Your task to perform on an android device: Search for a dining table on Crate & Barrel Image 0: 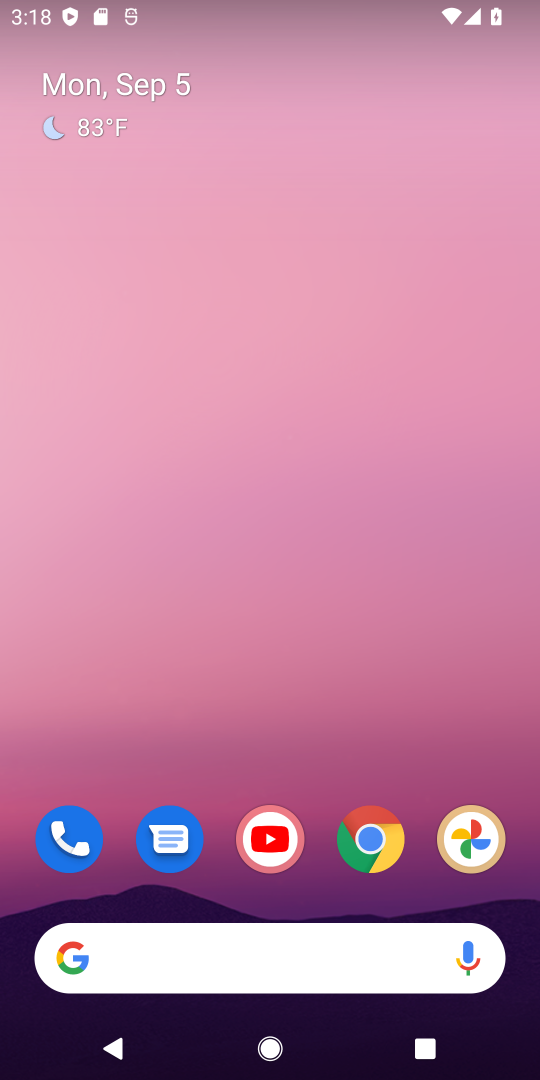
Step 0: click (357, 833)
Your task to perform on an android device: Search for a dining table on Crate & Barrel Image 1: 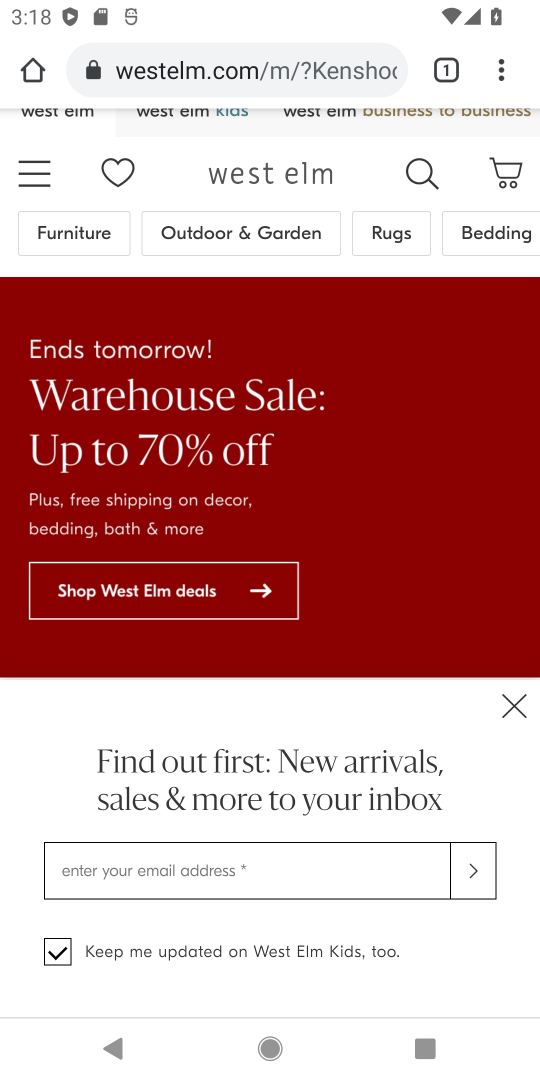
Step 1: click (170, 68)
Your task to perform on an android device: Search for a dining table on Crate & Barrel Image 2: 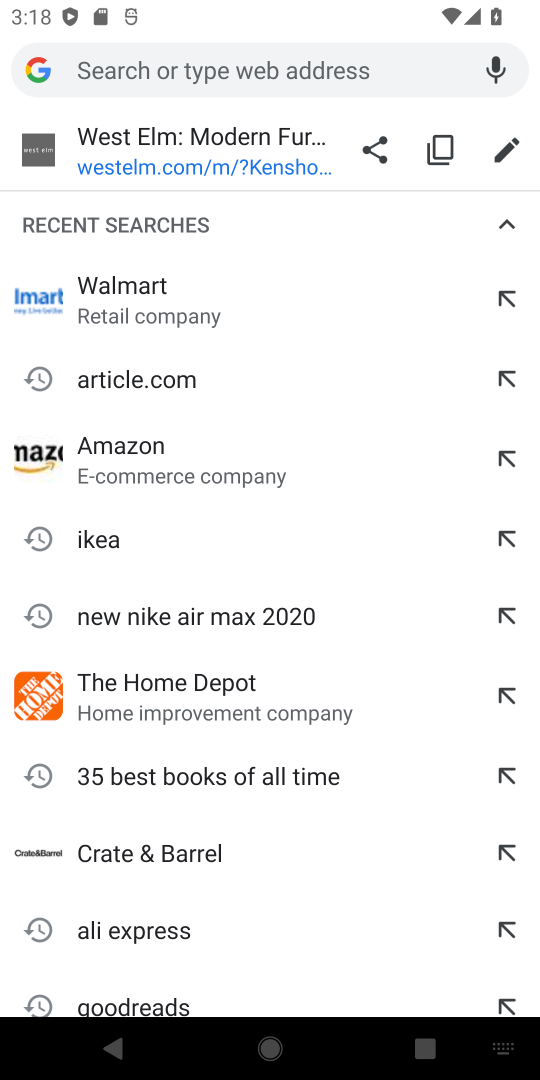
Step 2: type "Crate & Barrel"
Your task to perform on an android device: Search for a dining table on Crate & Barrel Image 3: 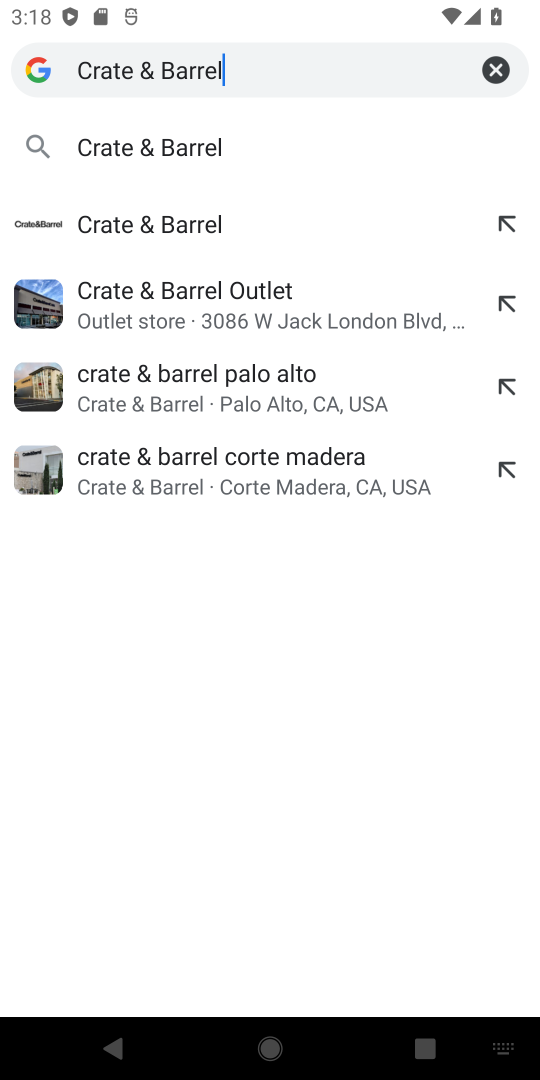
Step 3: click (163, 144)
Your task to perform on an android device: Search for a dining table on Crate & Barrel Image 4: 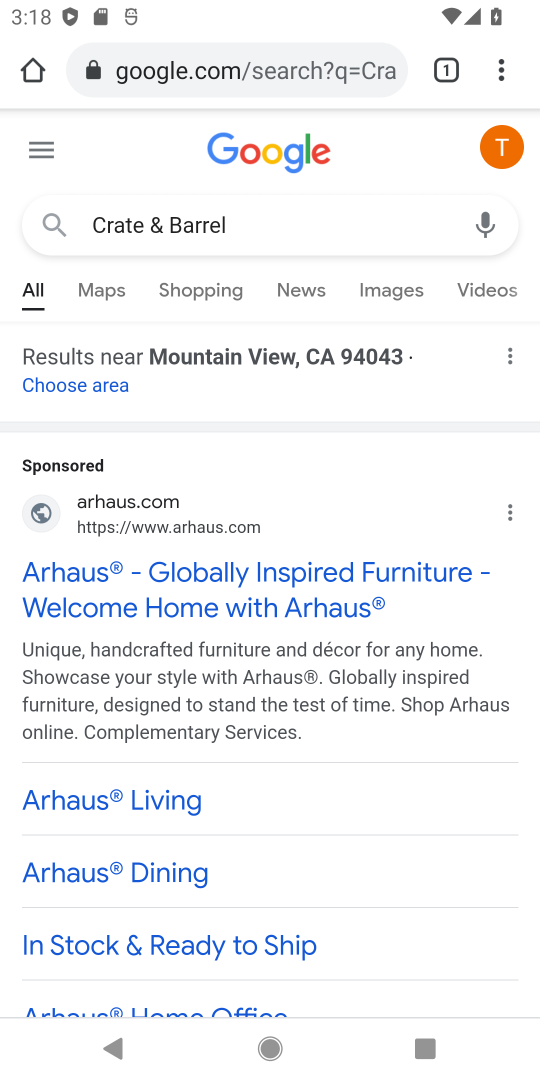
Step 4: drag from (190, 826) to (252, 424)
Your task to perform on an android device: Search for a dining table on Crate & Barrel Image 5: 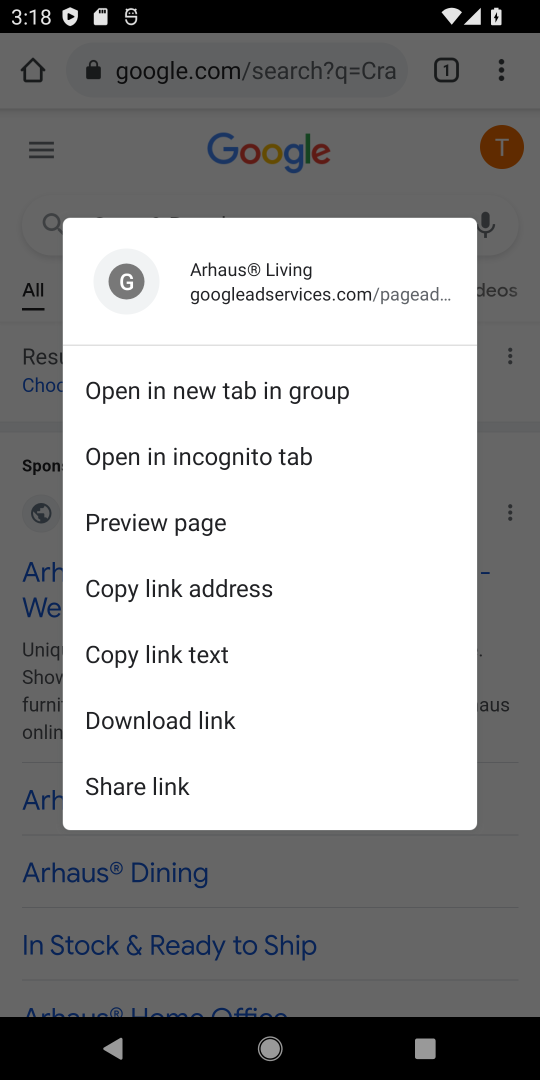
Step 5: drag from (31, 941) to (25, 423)
Your task to perform on an android device: Search for a dining table on Crate & Barrel Image 6: 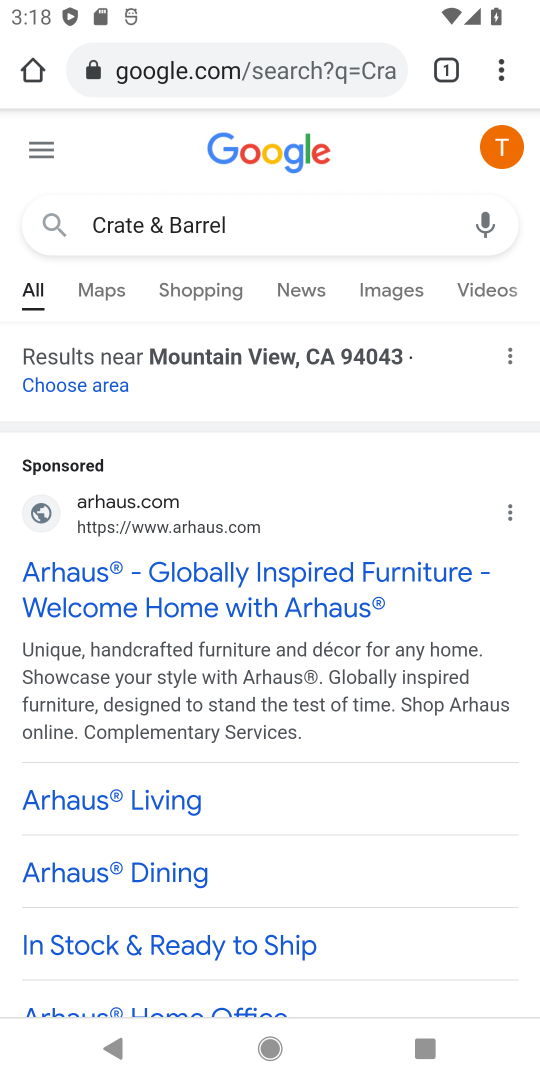
Step 6: drag from (160, 982) to (311, 318)
Your task to perform on an android device: Search for a dining table on Crate & Barrel Image 7: 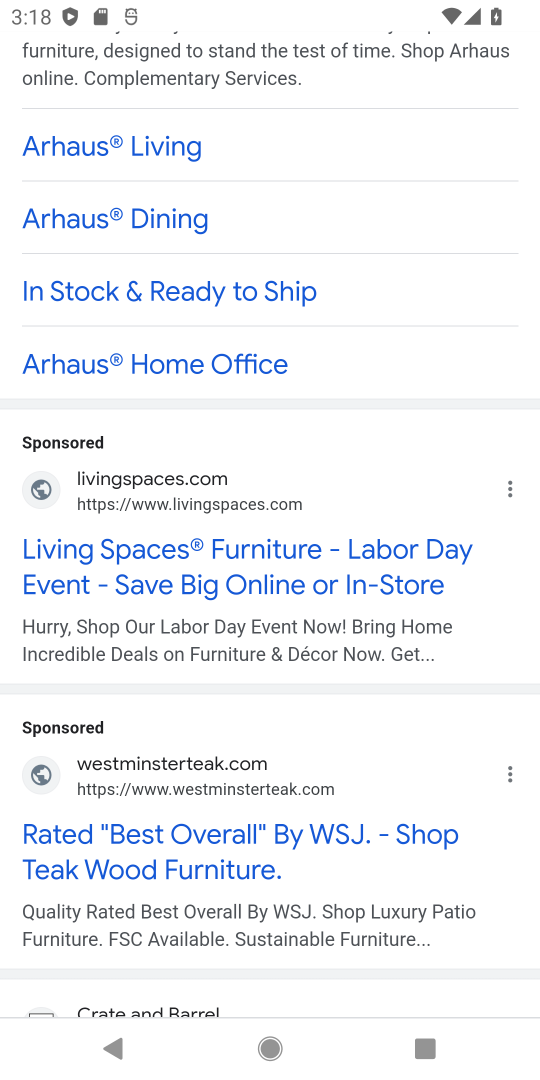
Step 7: drag from (314, 588) to (362, 220)
Your task to perform on an android device: Search for a dining table on Crate & Barrel Image 8: 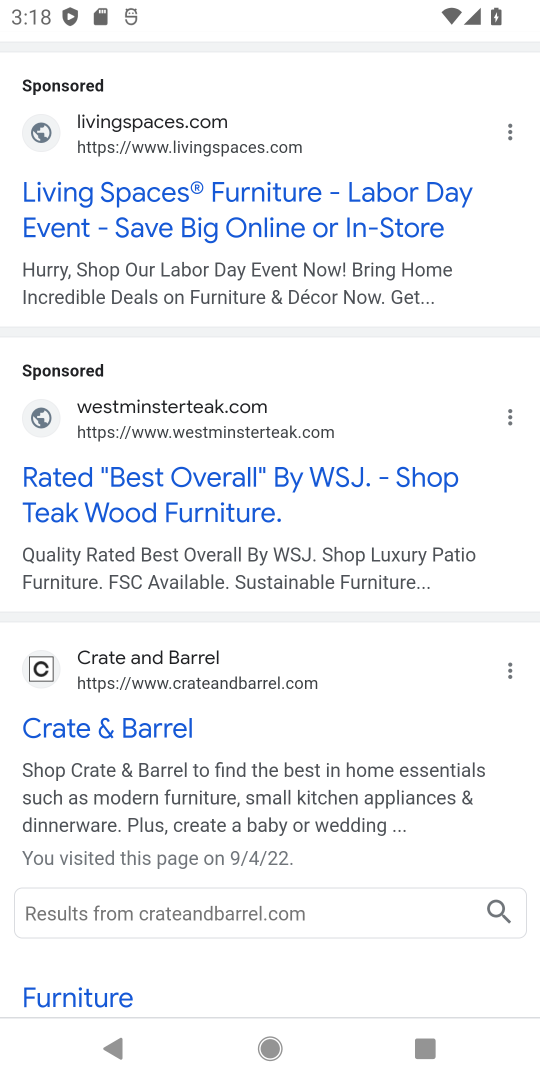
Step 8: click (123, 720)
Your task to perform on an android device: Search for a dining table on Crate & Barrel Image 9: 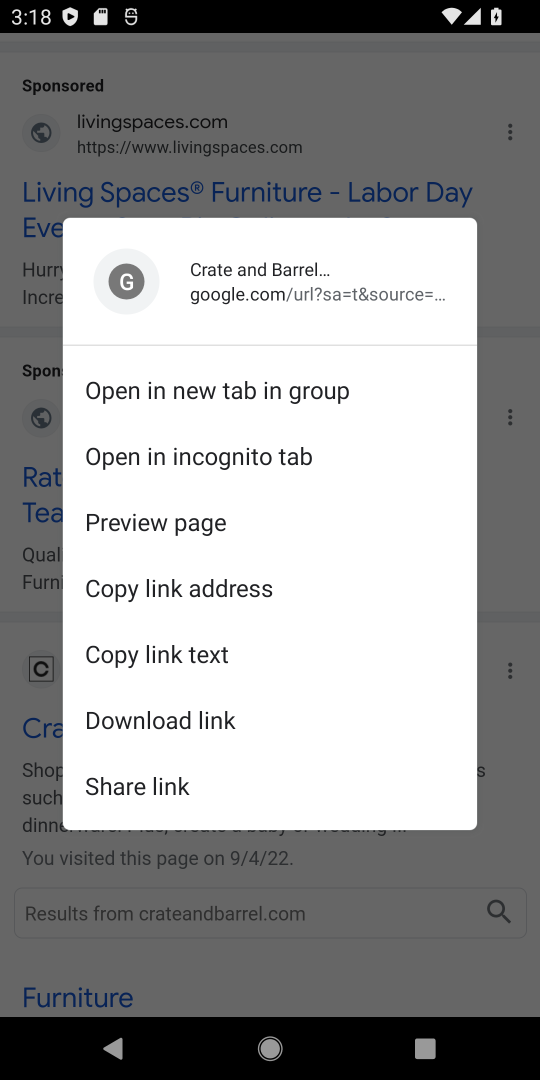
Step 9: click (42, 819)
Your task to perform on an android device: Search for a dining table on Crate & Barrel Image 10: 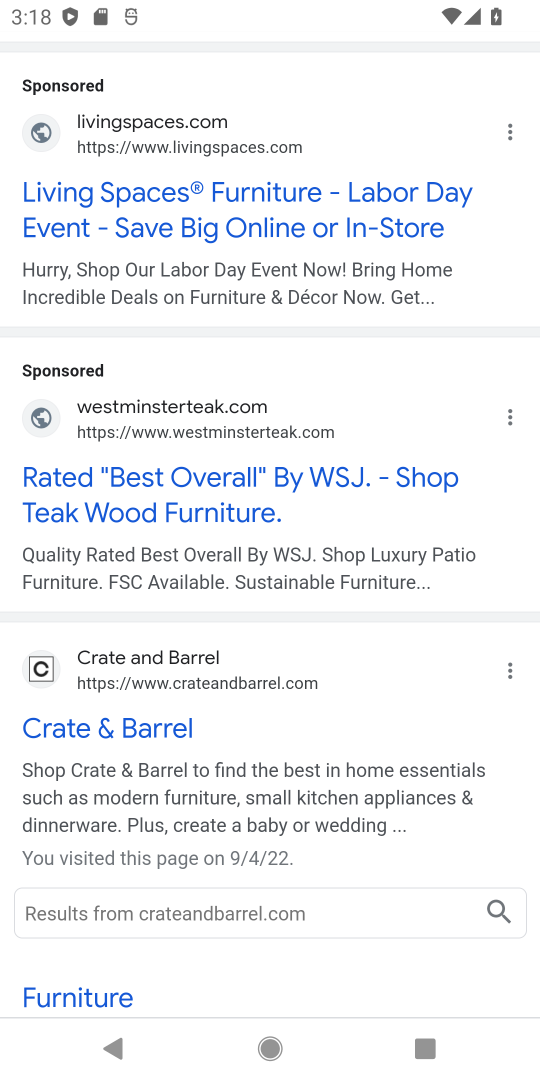
Step 10: click (103, 744)
Your task to perform on an android device: Search for a dining table on Crate & Barrel Image 11: 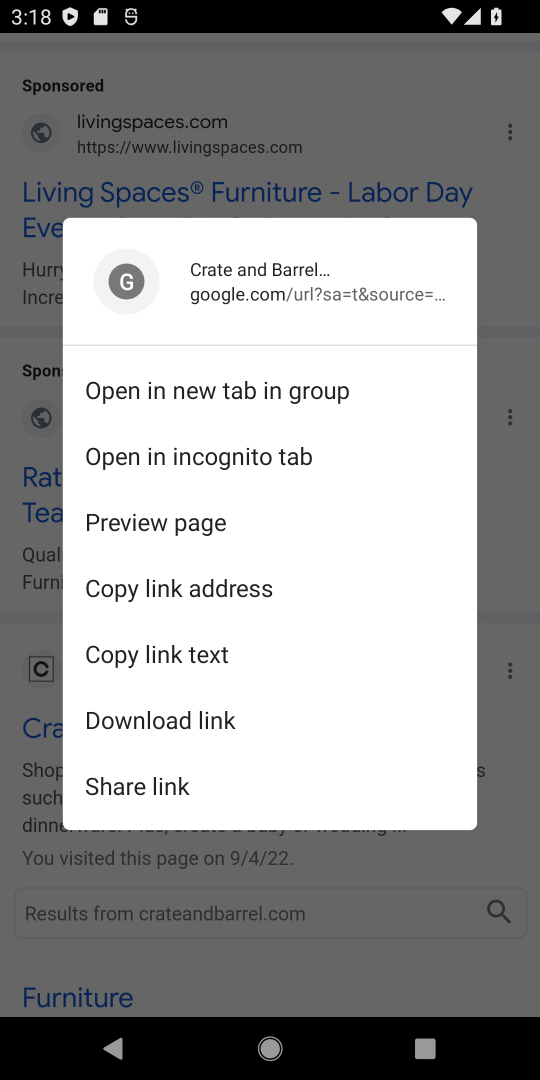
Step 11: click (11, 721)
Your task to perform on an android device: Search for a dining table on Crate & Barrel Image 12: 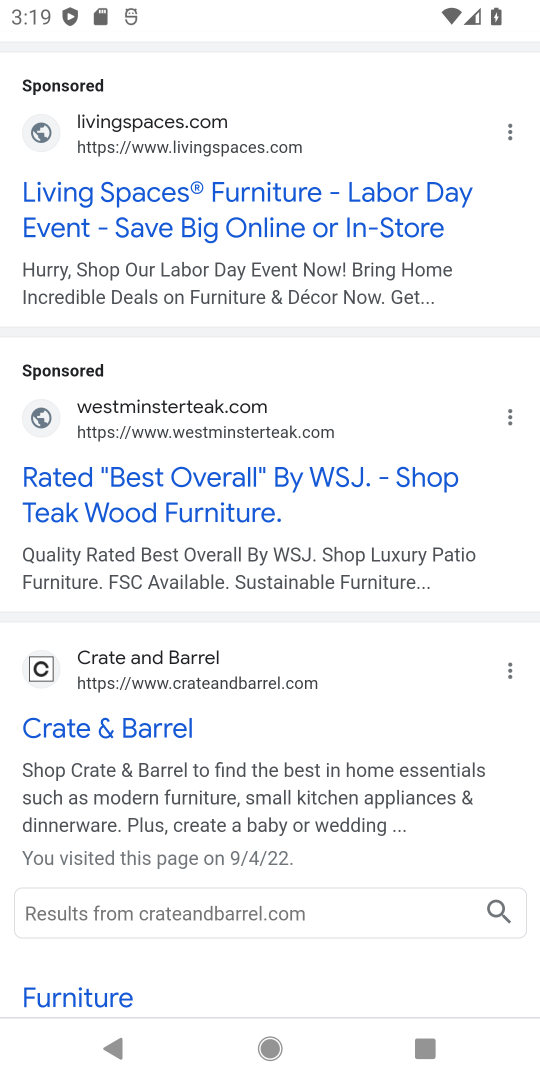
Step 12: click (121, 731)
Your task to perform on an android device: Search for a dining table on Crate & Barrel Image 13: 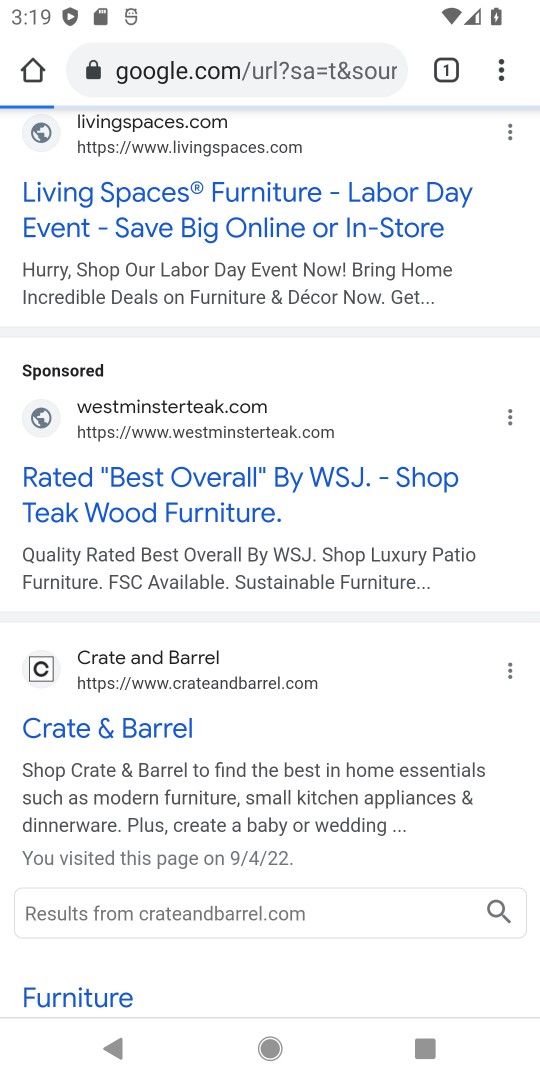
Step 13: click (121, 731)
Your task to perform on an android device: Search for a dining table on Crate & Barrel Image 14: 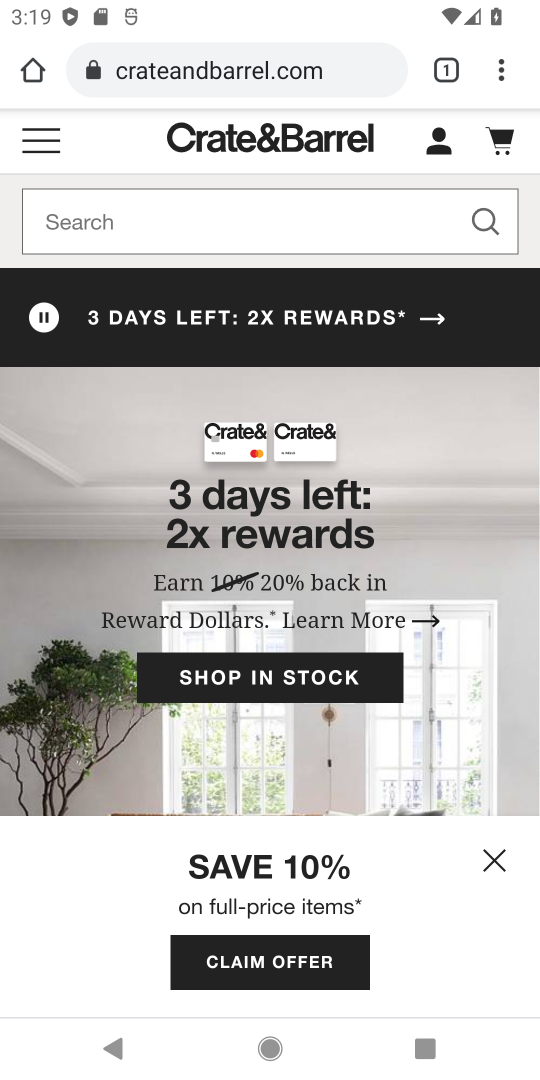
Step 14: click (135, 234)
Your task to perform on an android device: Search for a dining table on Crate & Barrel Image 15: 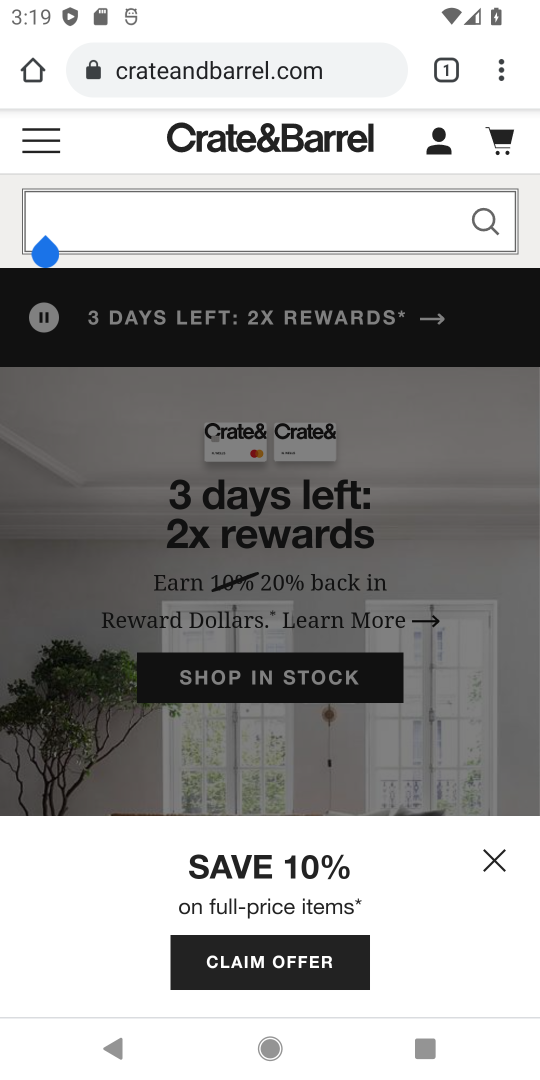
Step 15: type "Dining table"
Your task to perform on an android device: Search for a dining table on Crate & Barrel Image 16: 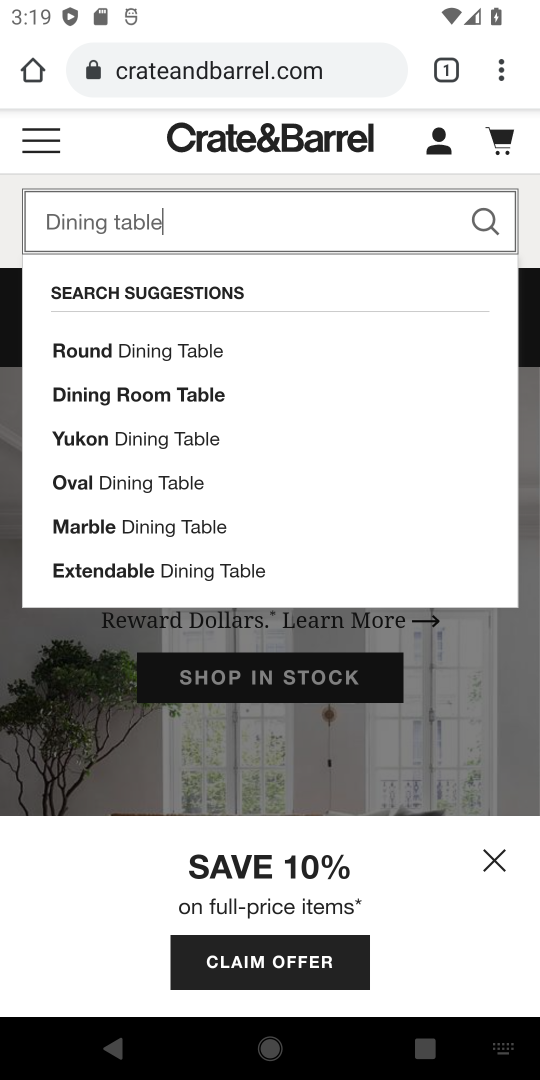
Step 16: click (482, 225)
Your task to perform on an android device: Search for a dining table on Crate & Barrel Image 17: 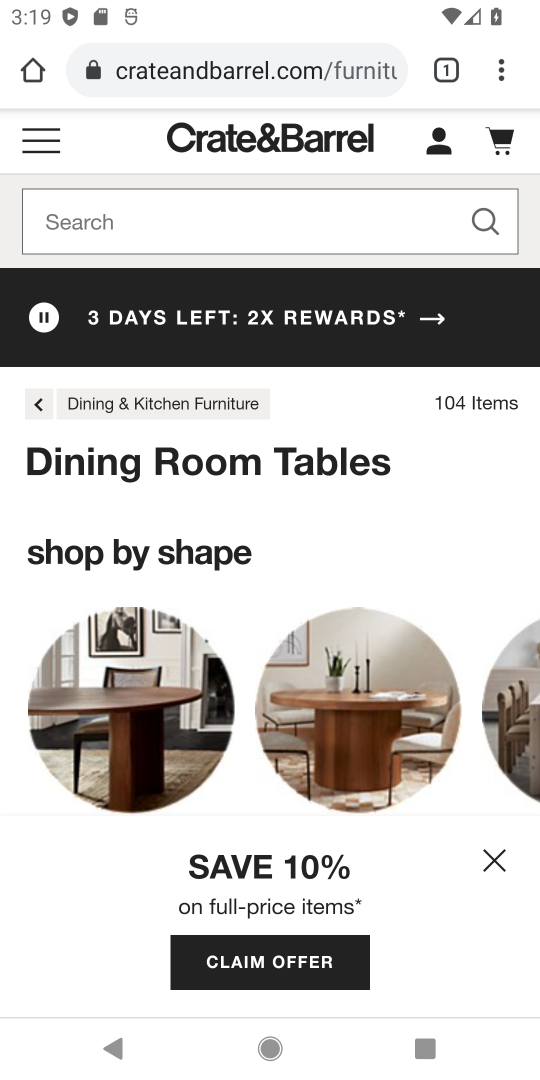
Step 17: click (487, 862)
Your task to perform on an android device: Search for a dining table on Crate & Barrel Image 18: 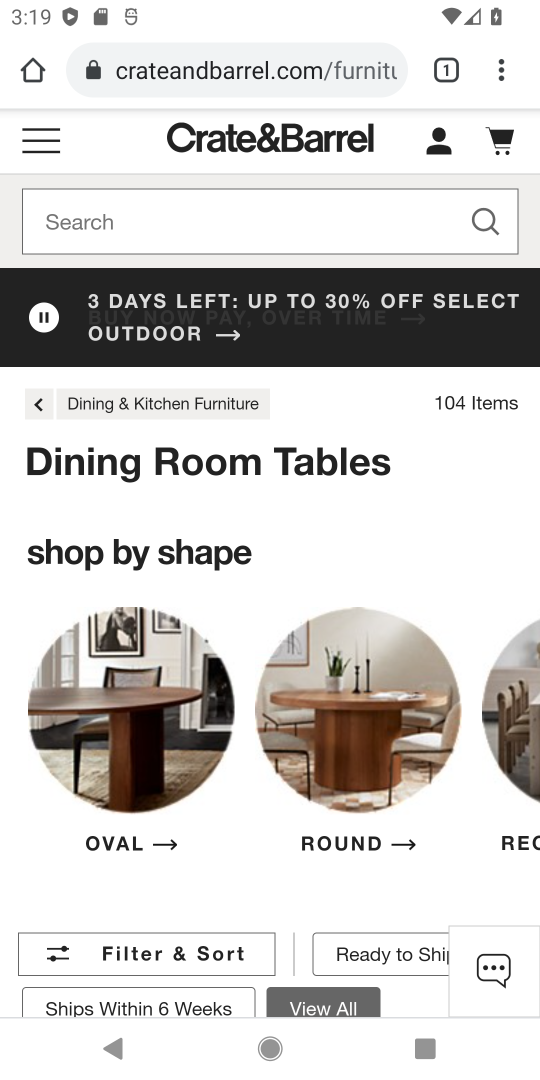
Step 18: task complete